Your task to perform on an android device: What's on my calendar today? Image 0: 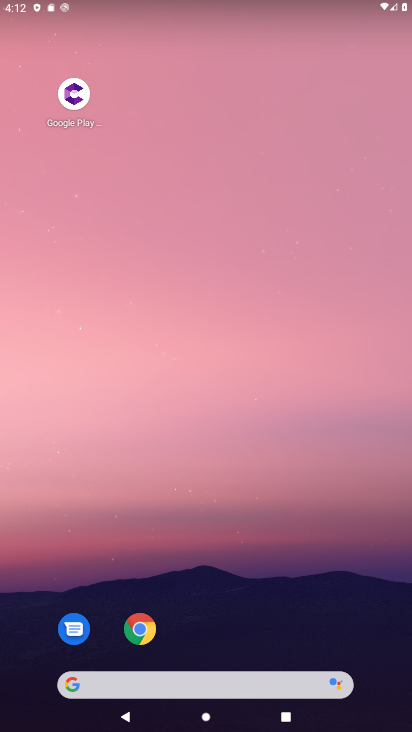
Step 0: drag from (234, 712) to (238, 199)
Your task to perform on an android device: What's on my calendar today? Image 1: 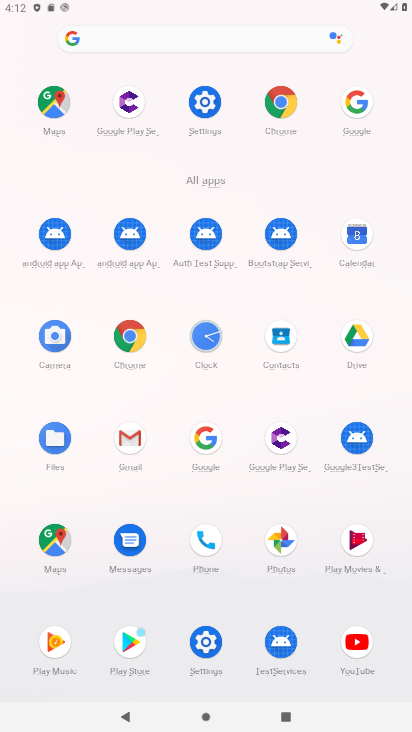
Step 1: click (354, 242)
Your task to perform on an android device: What's on my calendar today? Image 2: 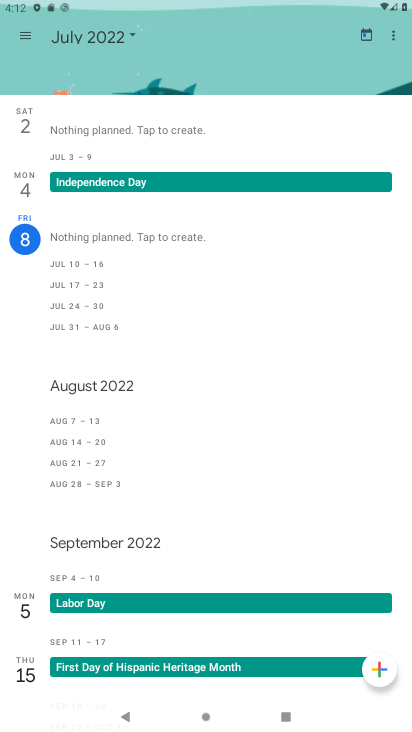
Step 2: click (119, 31)
Your task to perform on an android device: What's on my calendar today? Image 3: 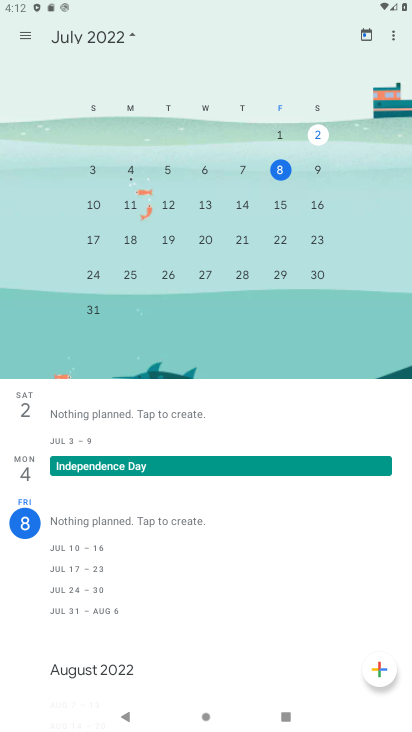
Step 3: click (282, 167)
Your task to perform on an android device: What's on my calendar today? Image 4: 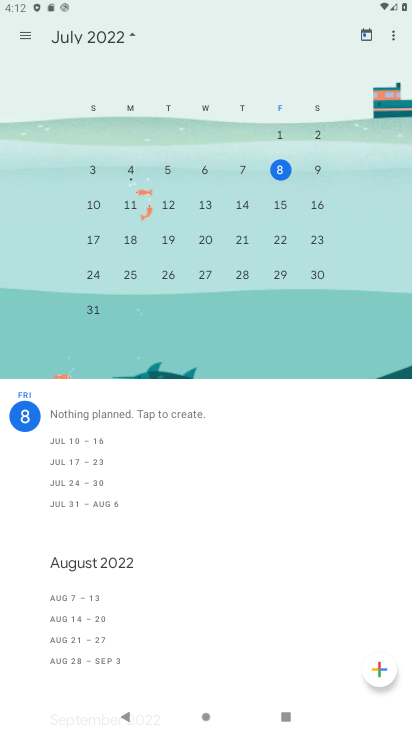
Step 4: click (281, 166)
Your task to perform on an android device: What's on my calendar today? Image 5: 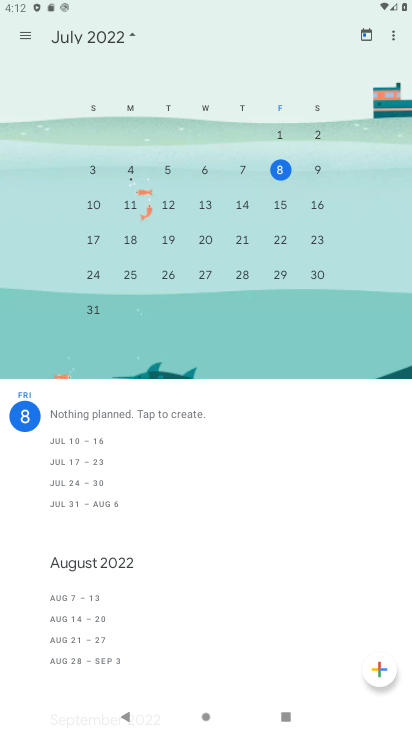
Step 5: click (281, 166)
Your task to perform on an android device: What's on my calendar today? Image 6: 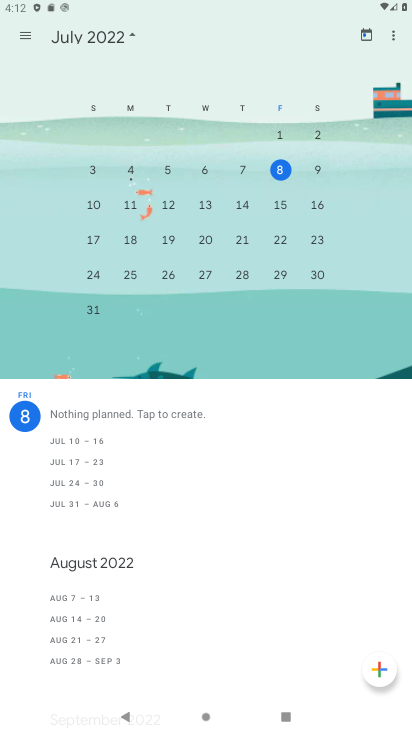
Step 6: click (132, 32)
Your task to perform on an android device: What's on my calendar today? Image 7: 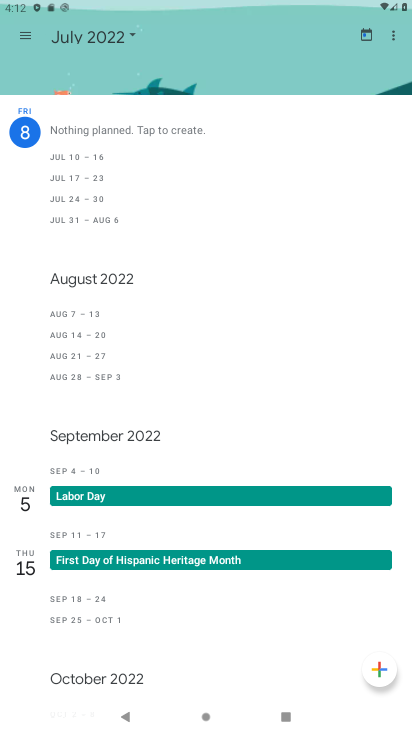
Step 7: task complete